Your task to perform on an android device: Go to calendar. Show me events next week Image 0: 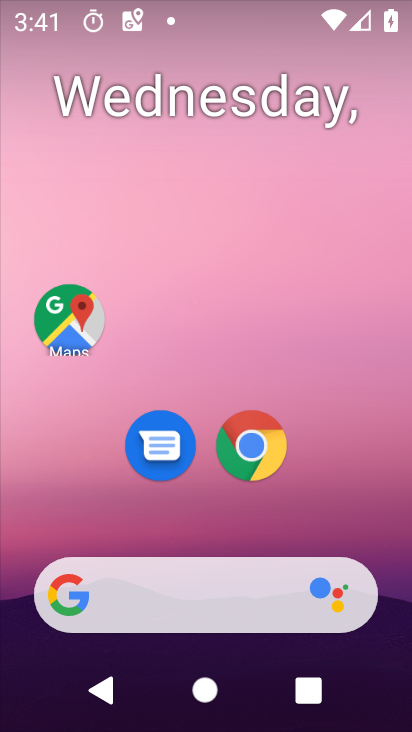
Step 0: drag from (197, 522) to (195, 89)
Your task to perform on an android device: Go to calendar. Show me events next week Image 1: 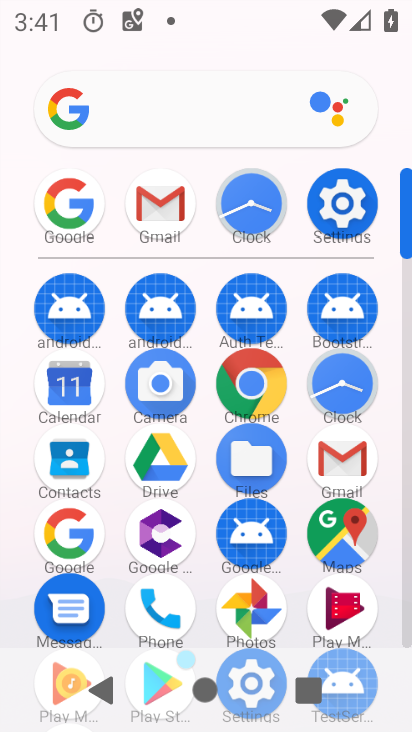
Step 1: click (64, 395)
Your task to perform on an android device: Go to calendar. Show me events next week Image 2: 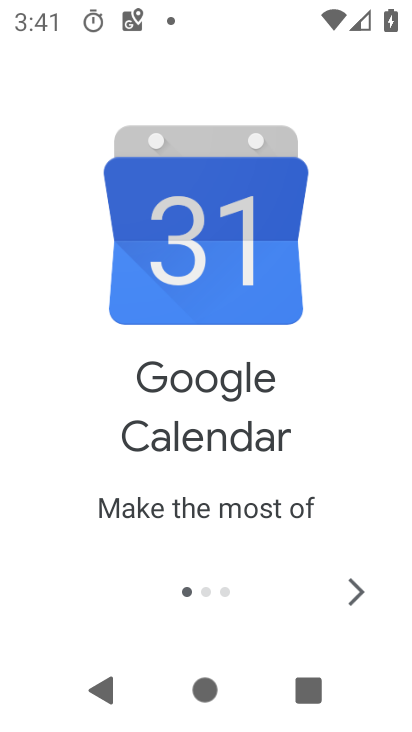
Step 2: click (377, 592)
Your task to perform on an android device: Go to calendar. Show me events next week Image 3: 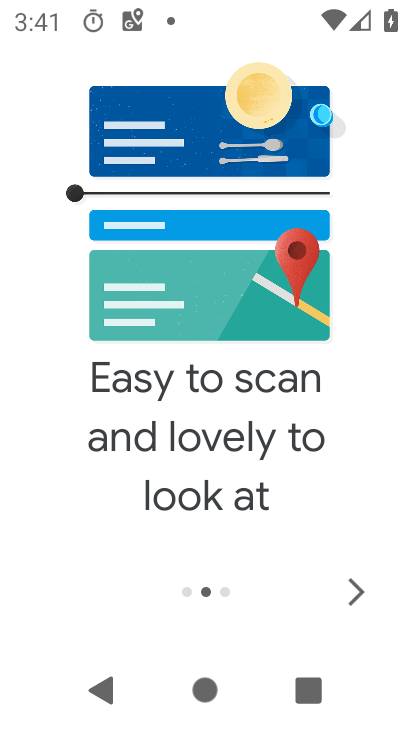
Step 3: click (370, 592)
Your task to perform on an android device: Go to calendar. Show me events next week Image 4: 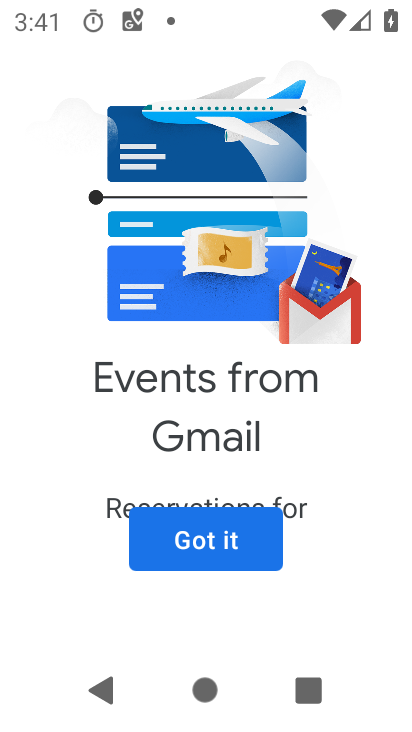
Step 4: click (370, 592)
Your task to perform on an android device: Go to calendar. Show me events next week Image 5: 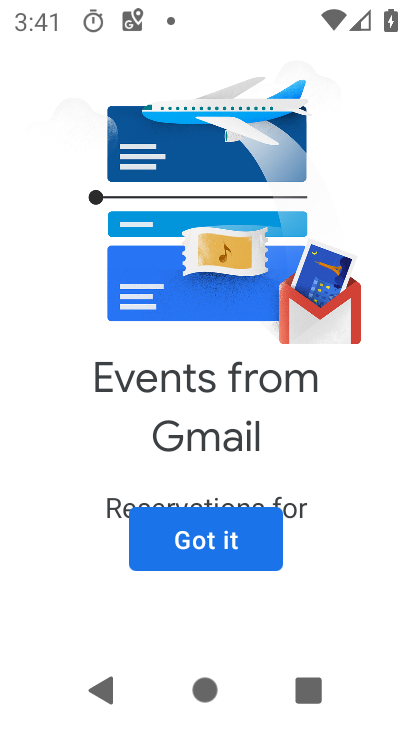
Step 5: click (211, 556)
Your task to perform on an android device: Go to calendar. Show me events next week Image 6: 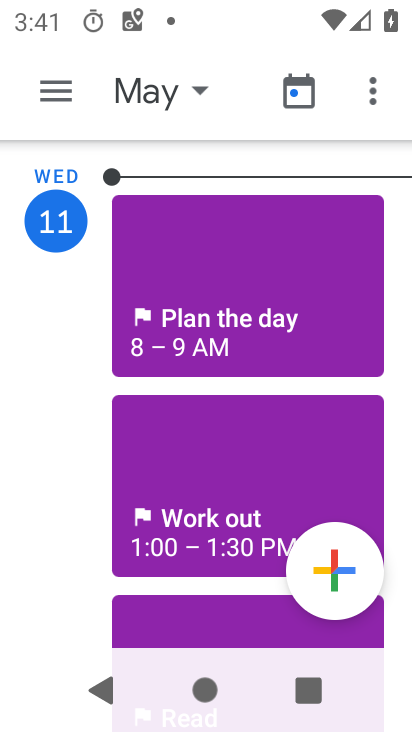
Step 6: click (182, 98)
Your task to perform on an android device: Go to calendar. Show me events next week Image 7: 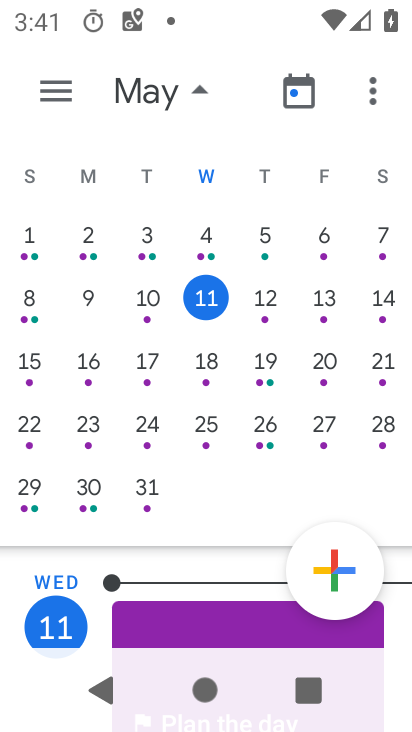
Step 7: click (34, 360)
Your task to perform on an android device: Go to calendar. Show me events next week Image 8: 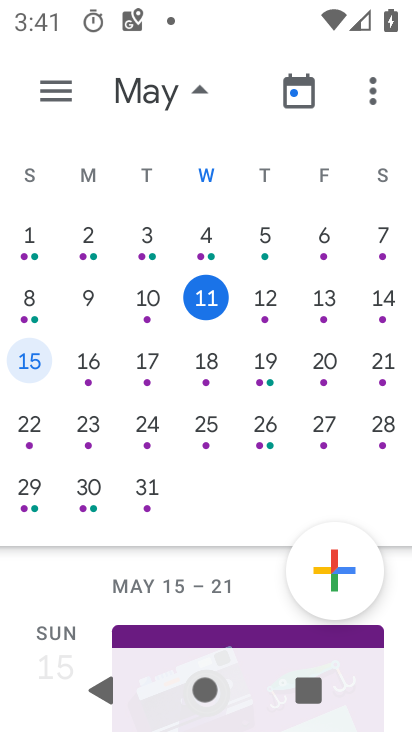
Step 8: click (89, 371)
Your task to perform on an android device: Go to calendar. Show me events next week Image 9: 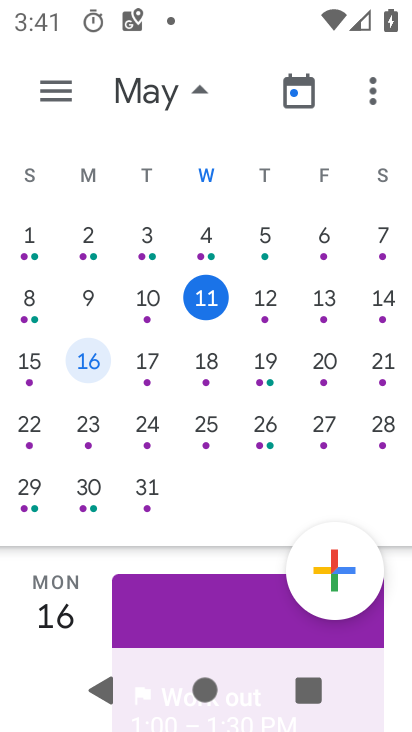
Step 9: task complete